Your task to perform on an android device: Open eBay Image 0: 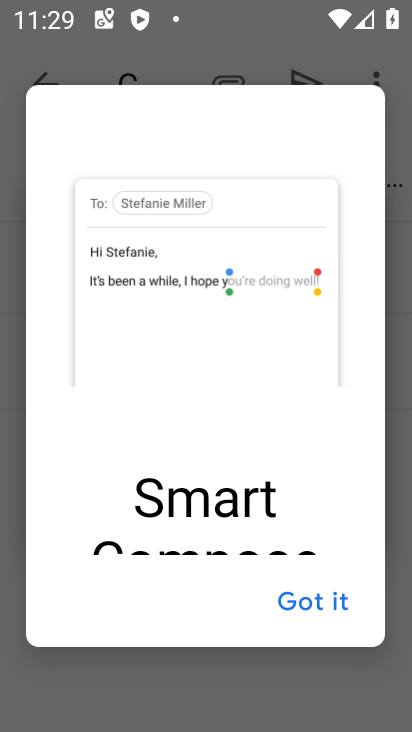
Step 0: press home button
Your task to perform on an android device: Open eBay Image 1: 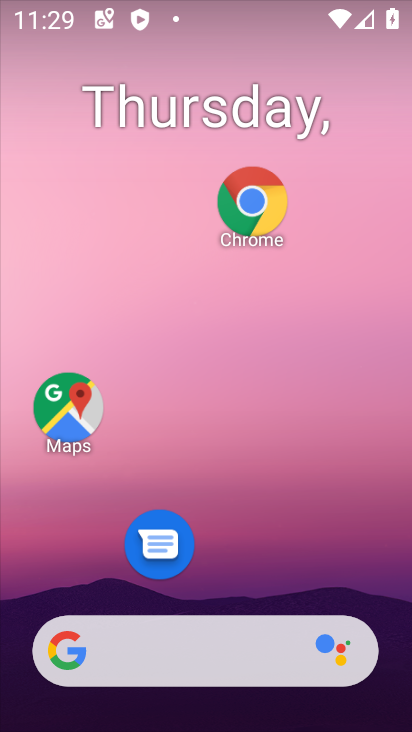
Step 1: click (247, 194)
Your task to perform on an android device: Open eBay Image 2: 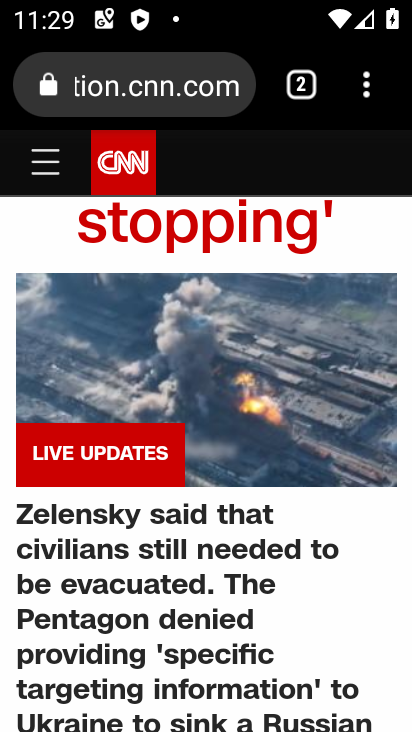
Step 2: click (295, 78)
Your task to perform on an android device: Open eBay Image 3: 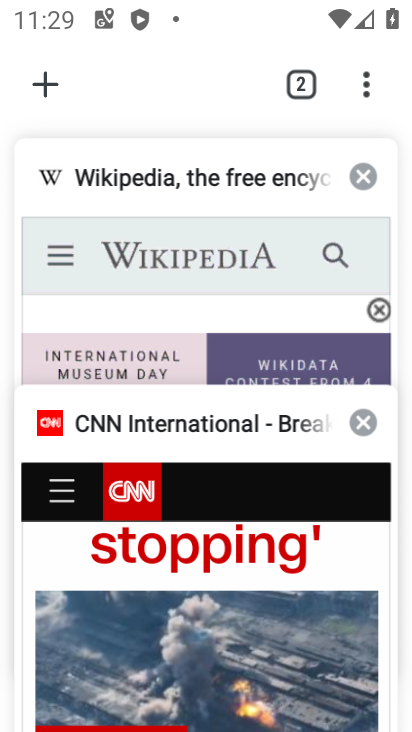
Step 3: click (356, 171)
Your task to perform on an android device: Open eBay Image 4: 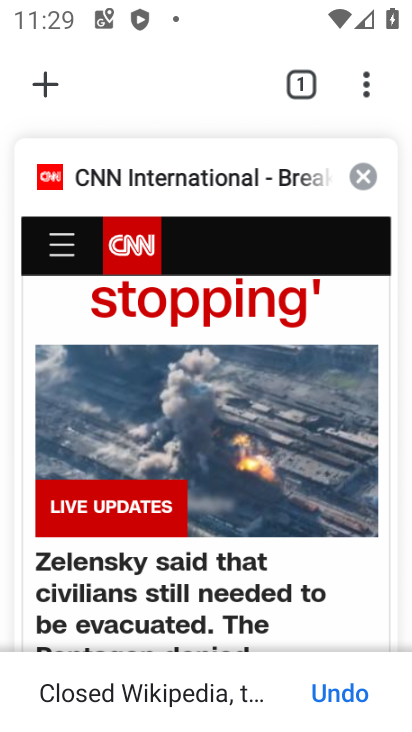
Step 4: click (363, 169)
Your task to perform on an android device: Open eBay Image 5: 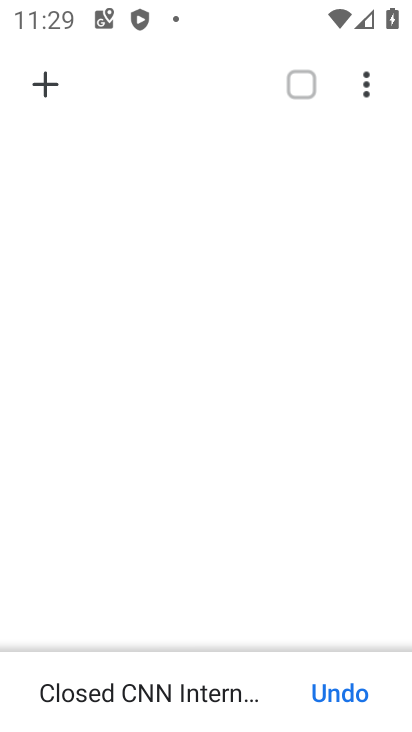
Step 5: click (51, 89)
Your task to perform on an android device: Open eBay Image 6: 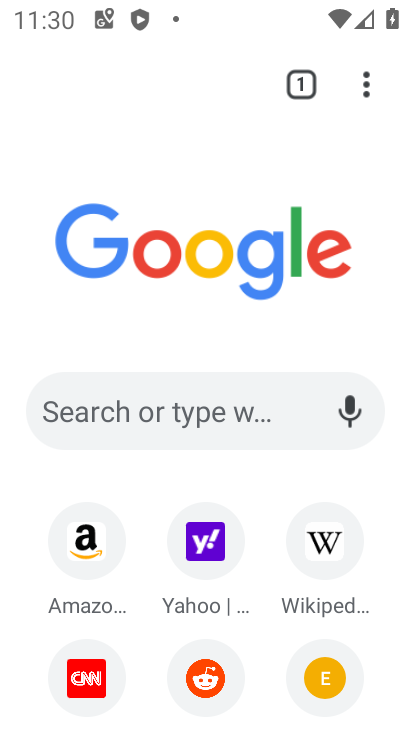
Step 6: click (181, 404)
Your task to perform on an android device: Open eBay Image 7: 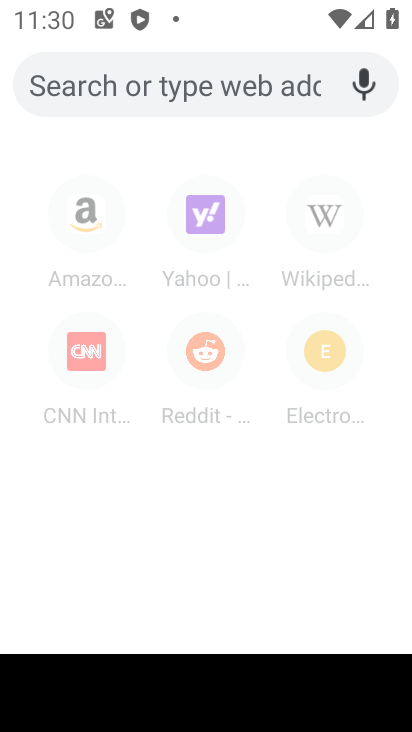
Step 7: type "ebay"
Your task to perform on an android device: Open eBay Image 8: 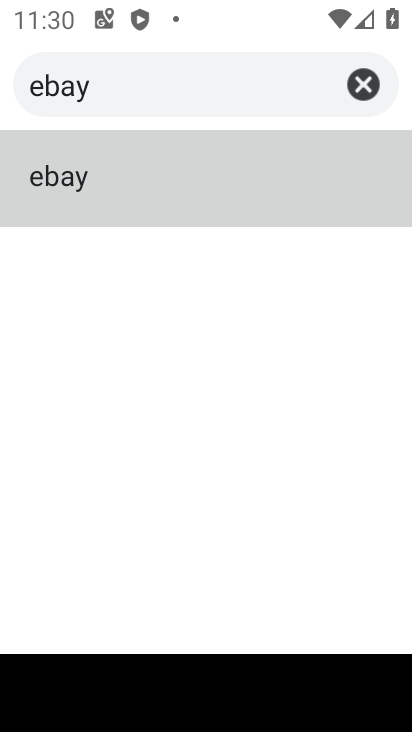
Step 8: click (57, 183)
Your task to perform on an android device: Open eBay Image 9: 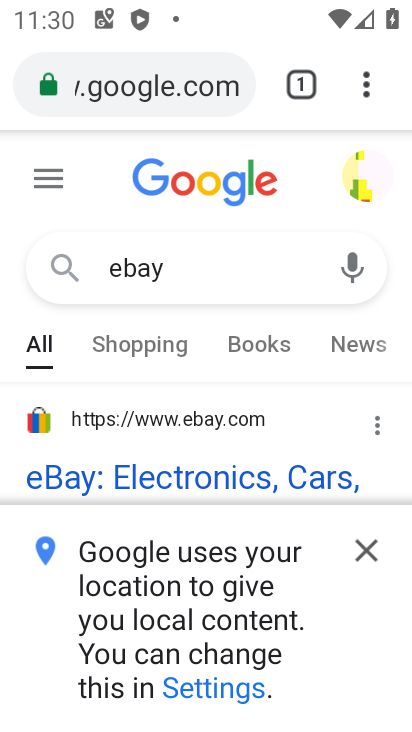
Step 9: click (204, 467)
Your task to perform on an android device: Open eBay Image 10: 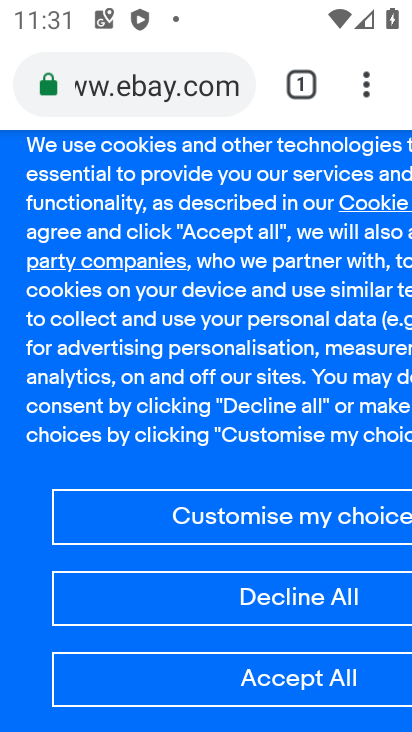
Step 10: click (310, 663)
Your task to perform on an android device: Open eBay Image 11: 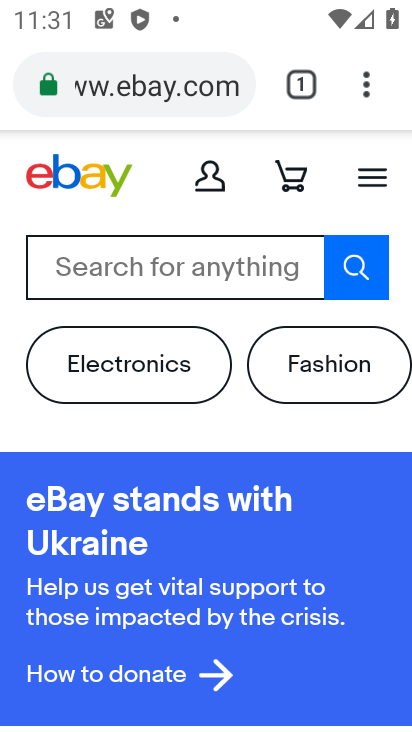
Step 11: task complete